Your task to perform on an android device: Show me the alarms in the clock app Image 0: 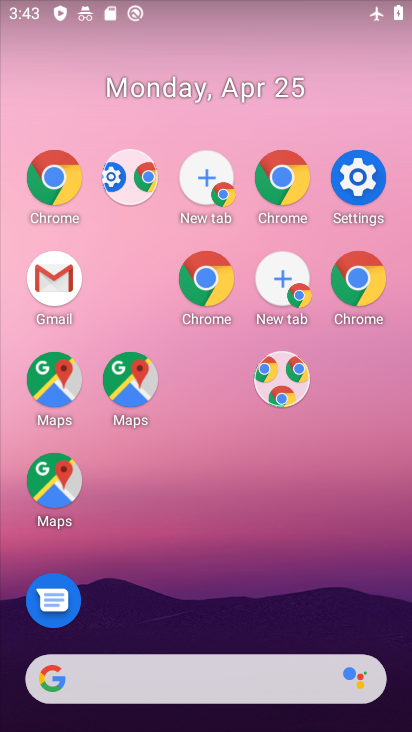
Step 0: drag from (287, 728) to (151, 48)
Your task to perform on an android device: Show me the alarms in the clock app Image 1: 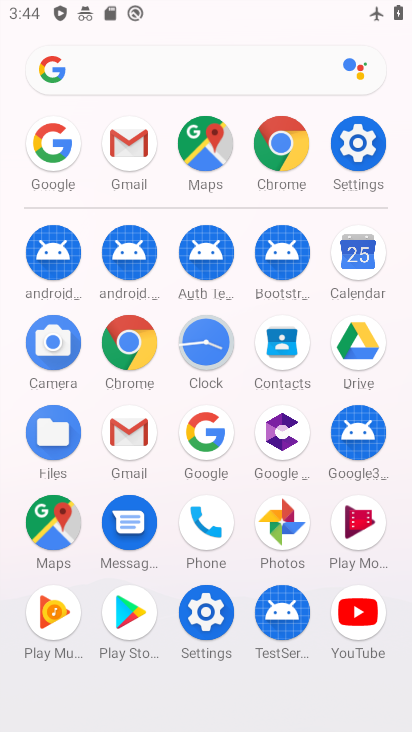
Step 1: click (207, 338)
Your task to perform on an android device: Show me the alarms in the clock app Image 2: 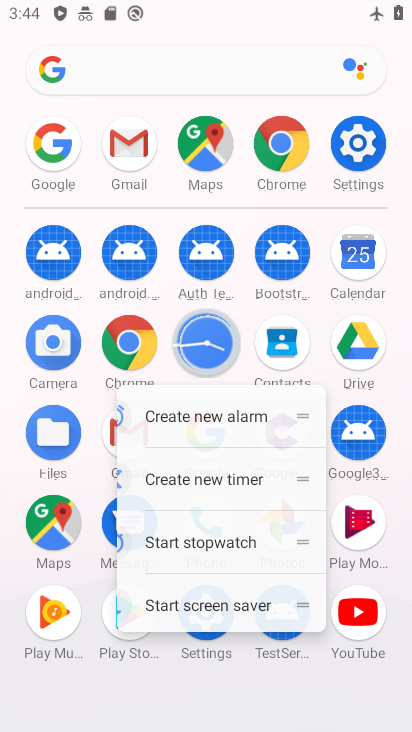
Step 2: click (208, 337)
Your task to perform on an android device: Show me the alarms in the clock app Image 3: 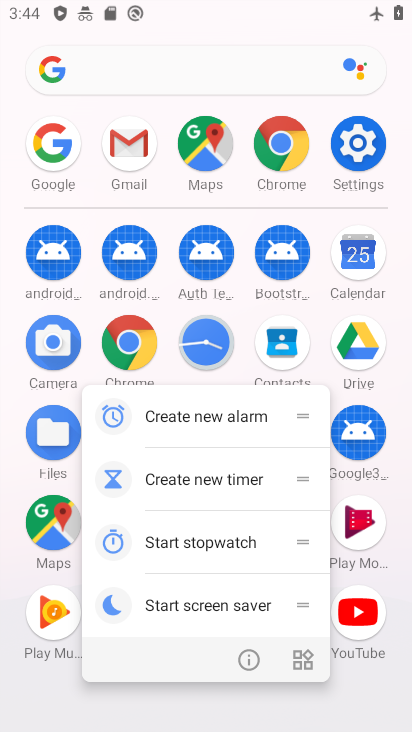
Step 3: click (207, 340)
Your task to perform on an android device: Show me the alarms in the clock app Image 4: 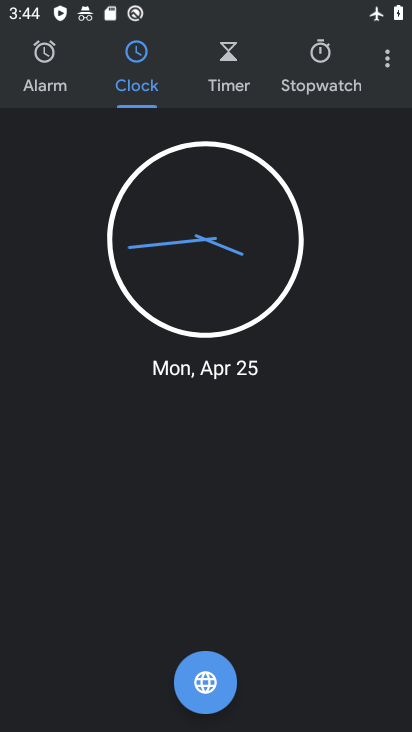
Step 4: click (58, 85)
Your task to perform on an android device: Show me the alarms in the clock app Image 5: 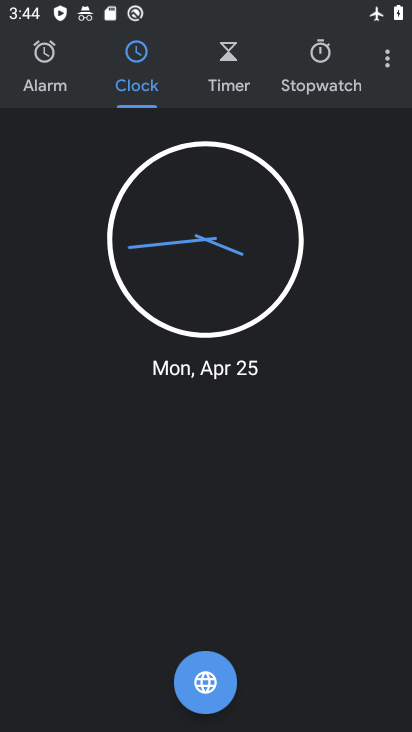
Step 5: click (57, 84)
Your task to perform on an android device: Show me the alarms in the clock app Image 6: 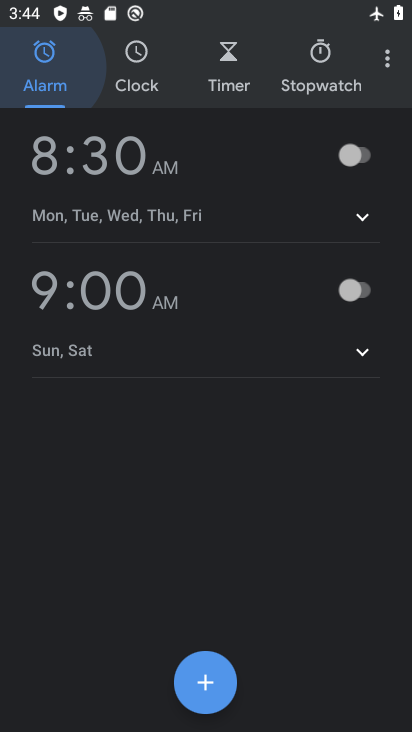
Step 6: click (56, 88)
Your task to perform on an android device: Show me the alarms in the clock app Image 7: 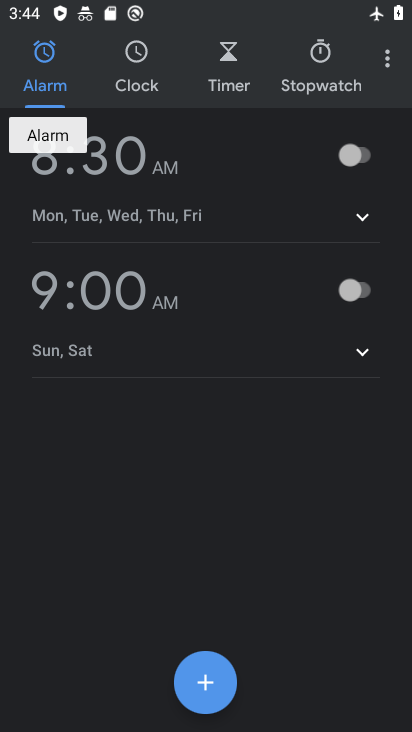
Step 7: click (354, 161)
Your task to perform on an android device: Show me the alarms in the clock app Image 8: 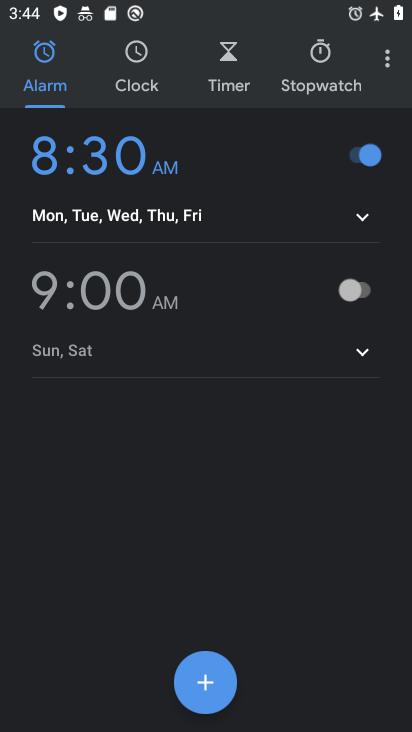
Step 8: task complete